Your task to perform on an android device: Search for macbook air on amazon, select the first entry, and add it to the cart. Image 0: 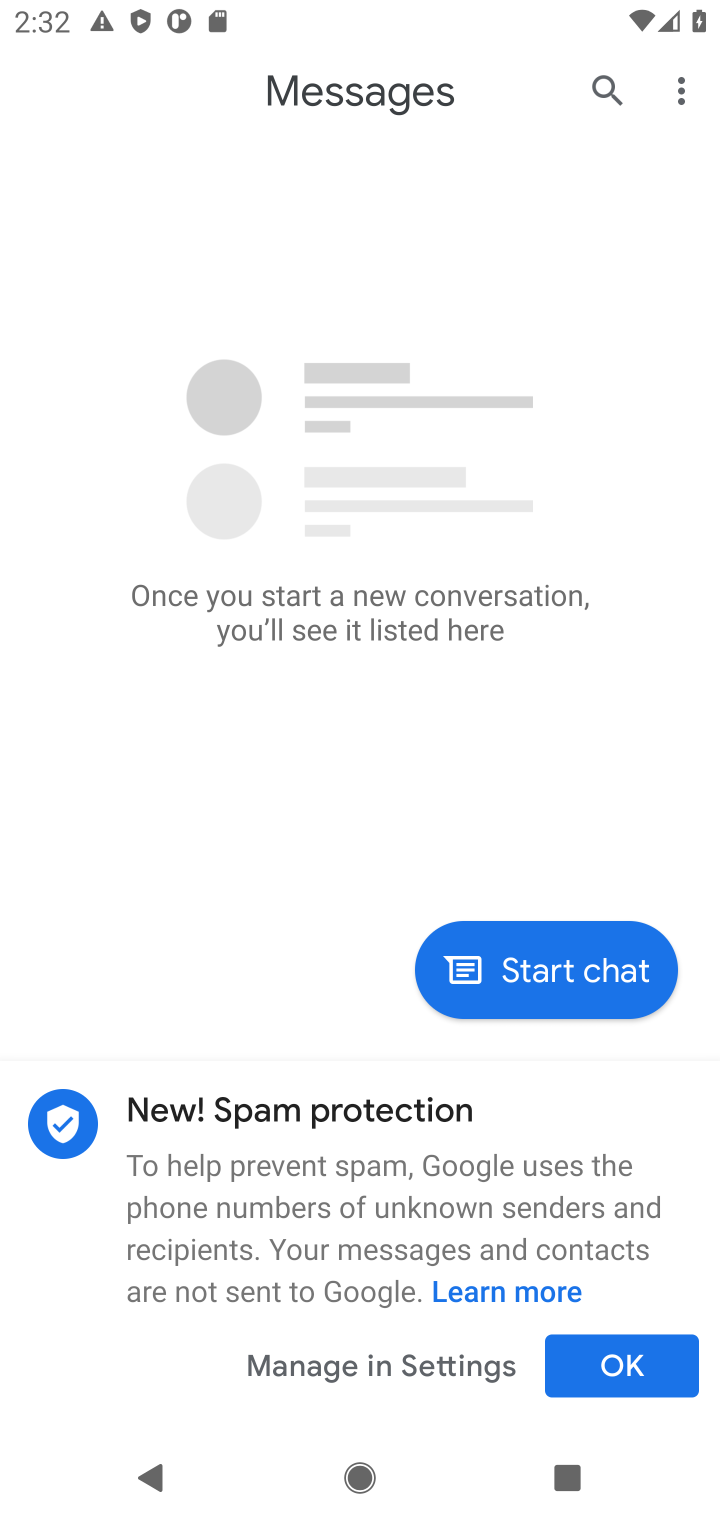
Step 0: press home button
Your task to perform on an android device: Search for macbook air on amazon, select the first entry, and add it to the cart. Image 1: 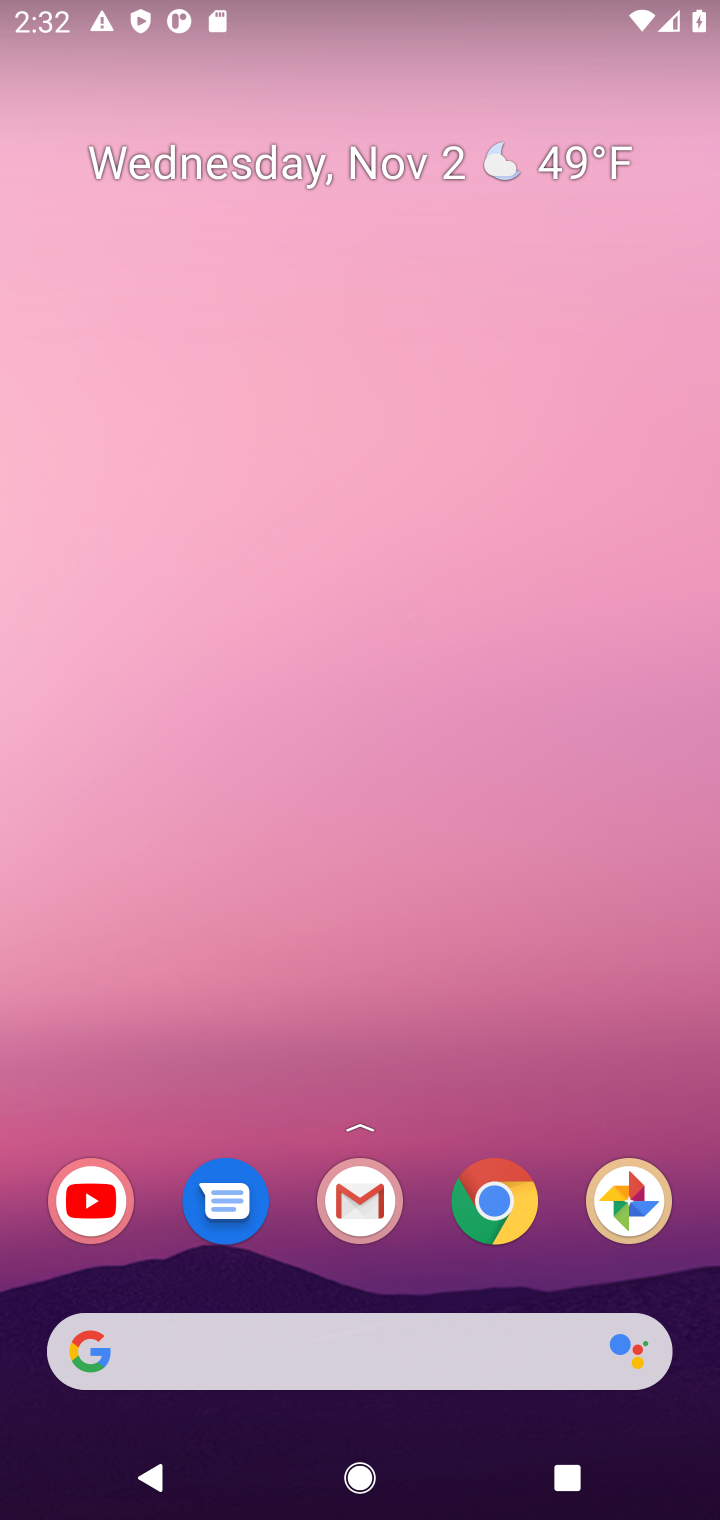
Step 1: click (498, 1207)
Your task to perform on an android device: Search for macbook air on amazon, select the first entry, and add it to the cart. Image 2: 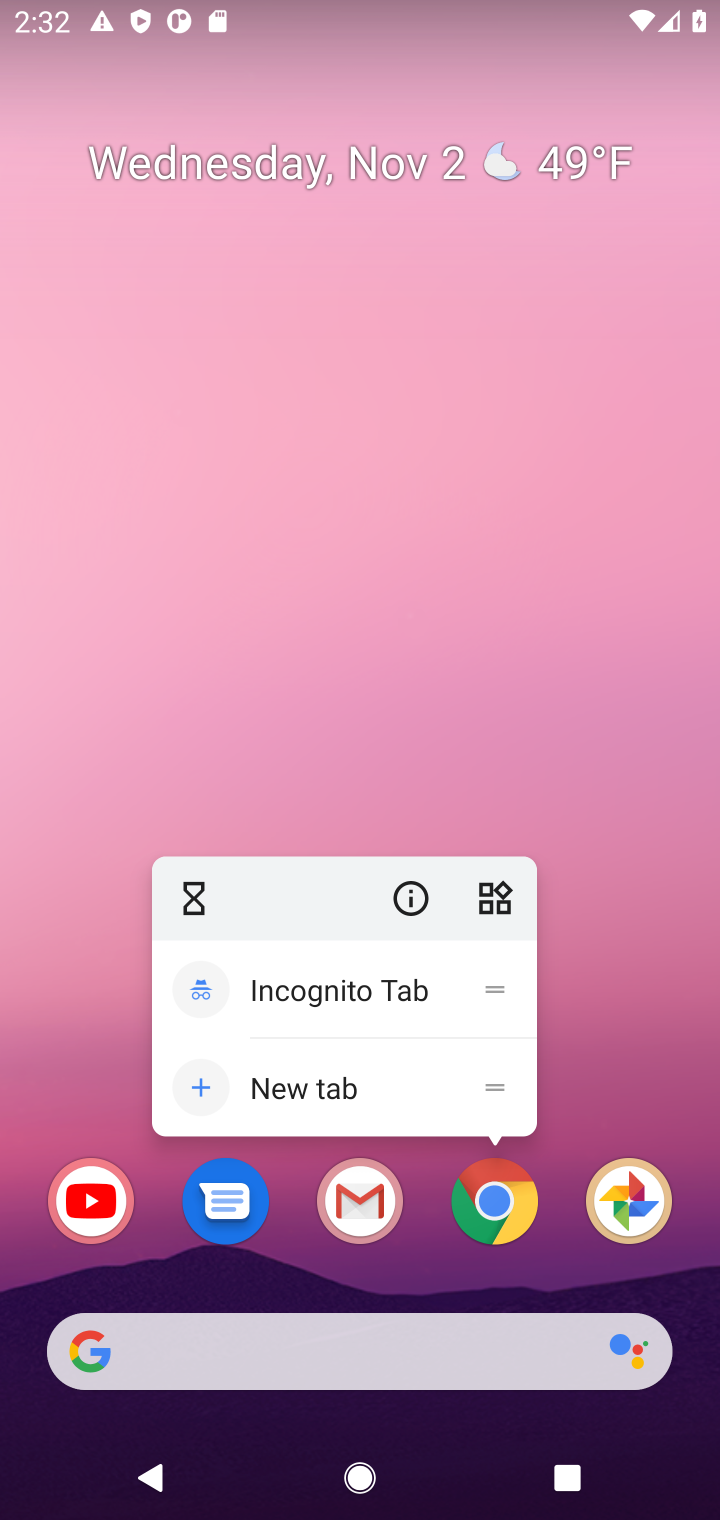
Step 2: click (498, 1209)
Your task to perform on an android device: Search for macbook air on amazon, select the first entry, and add it to the cart. Image 3: 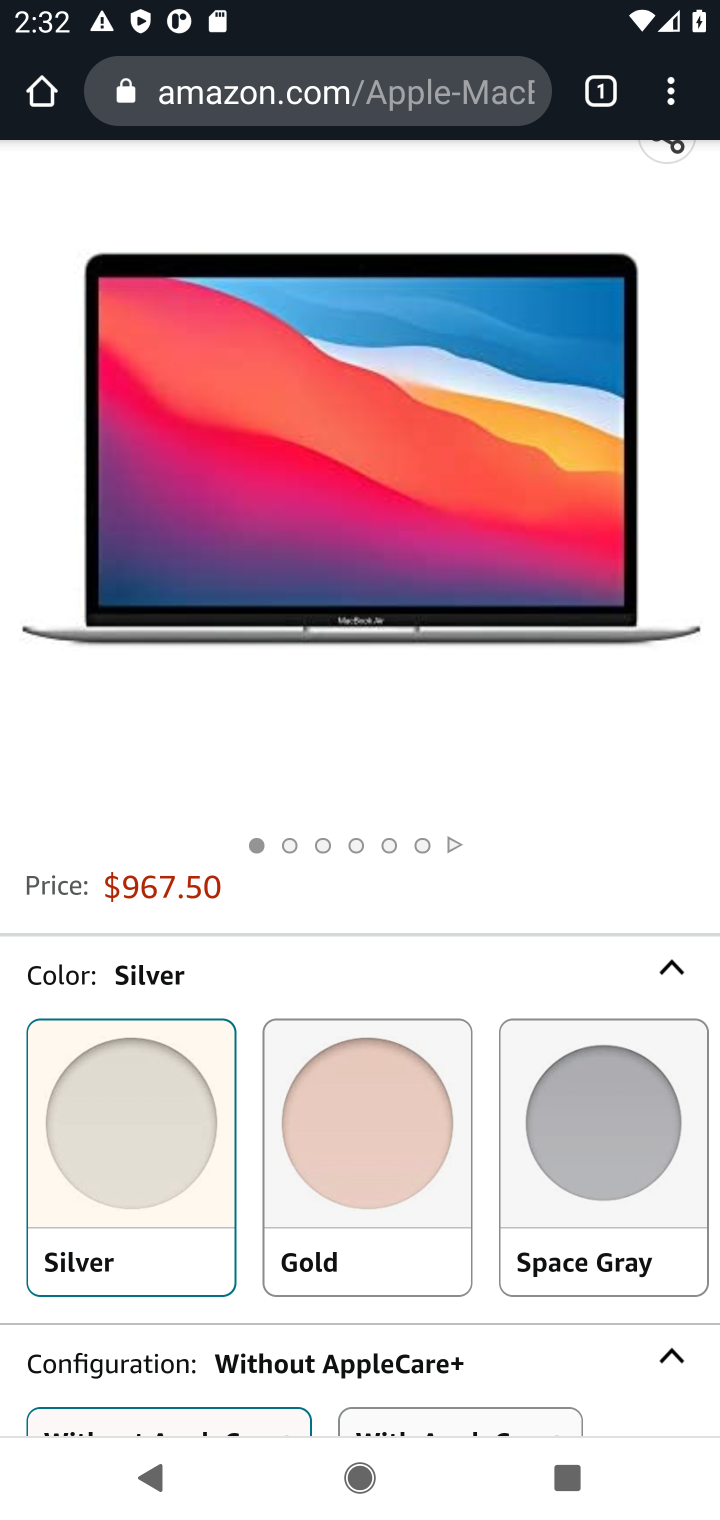
Step 3: task complete